Your task to perform on an android device: Open notification settings Image 0: 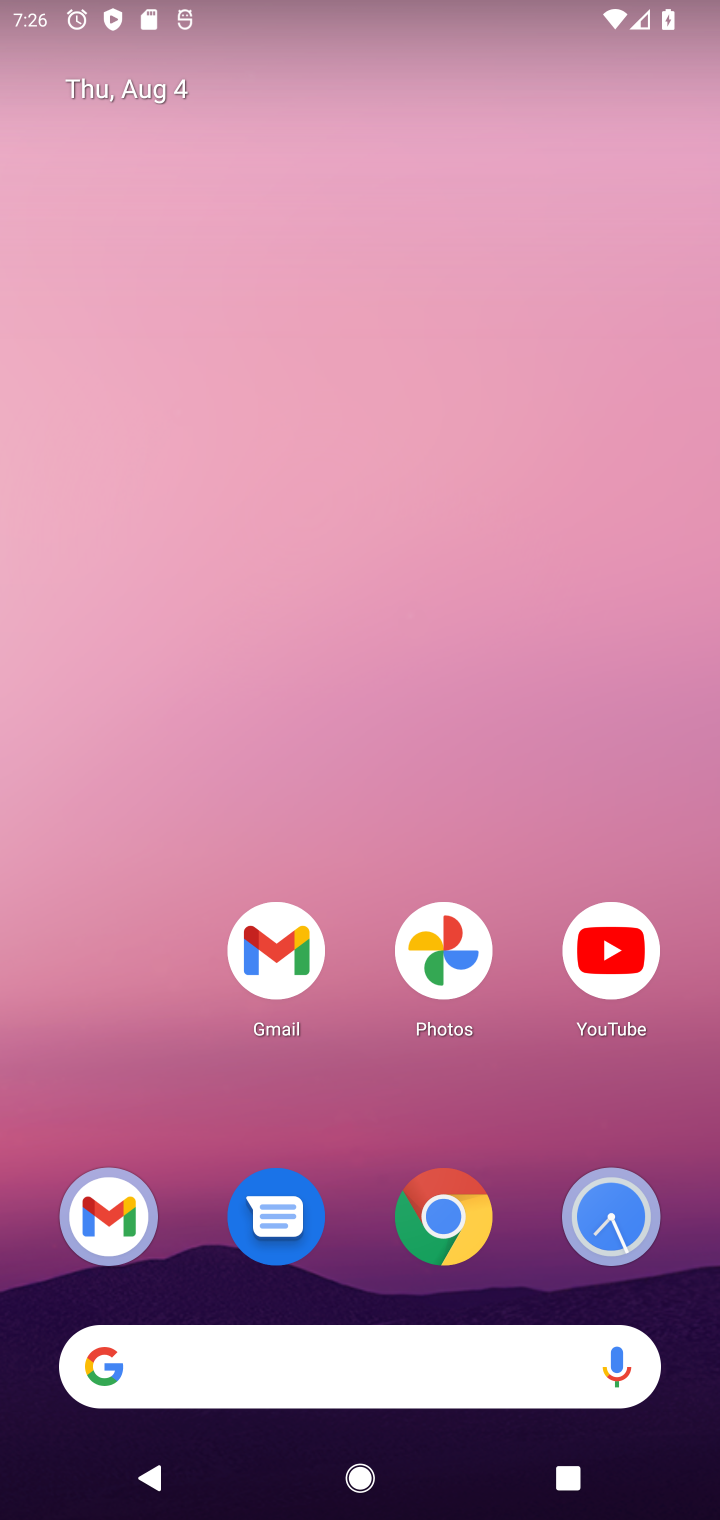
Step 0: drag from (510, 864) to (462, 8)
Your task to perform on an android device: Open notification settings Image 1: 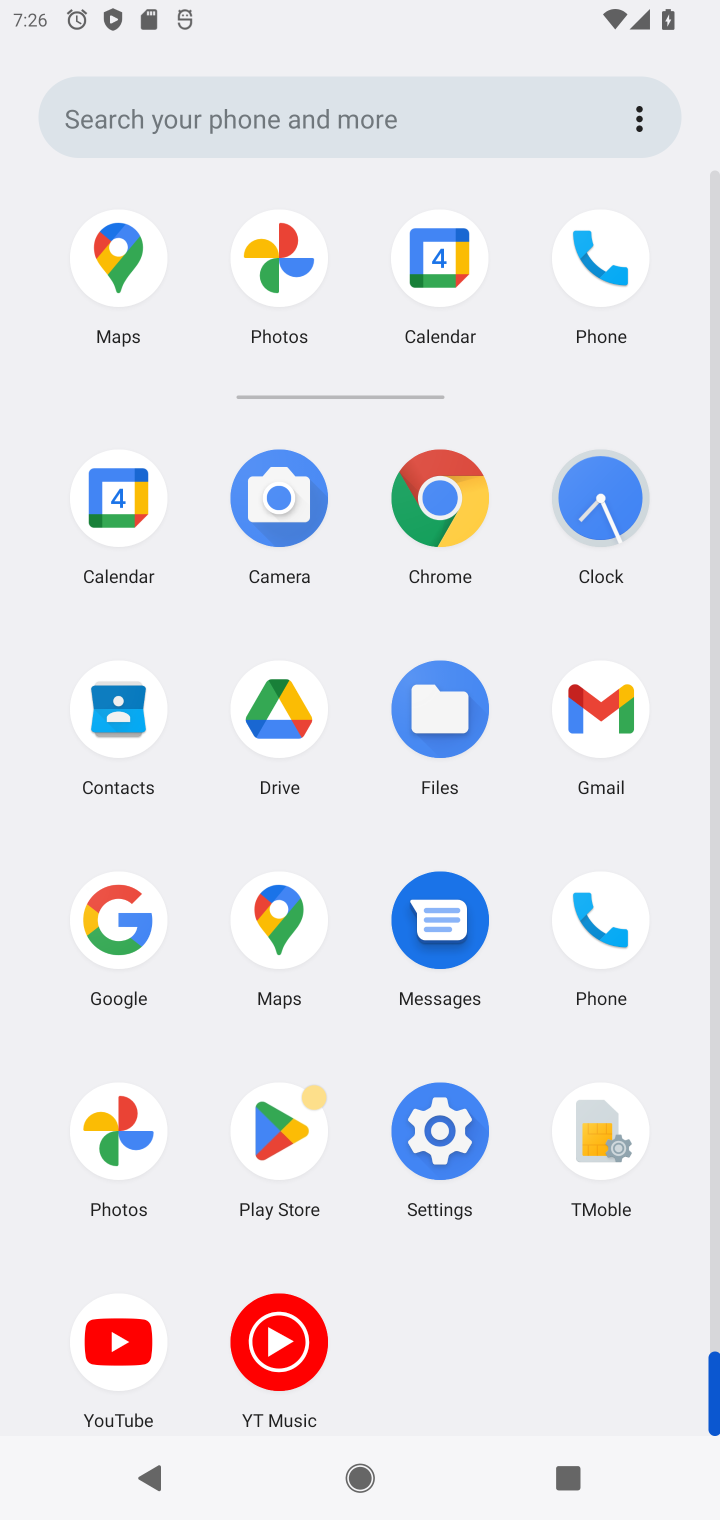
Step 1: click (446, 1161)
Your task to perform on an android device: Open notification settings Image 2: 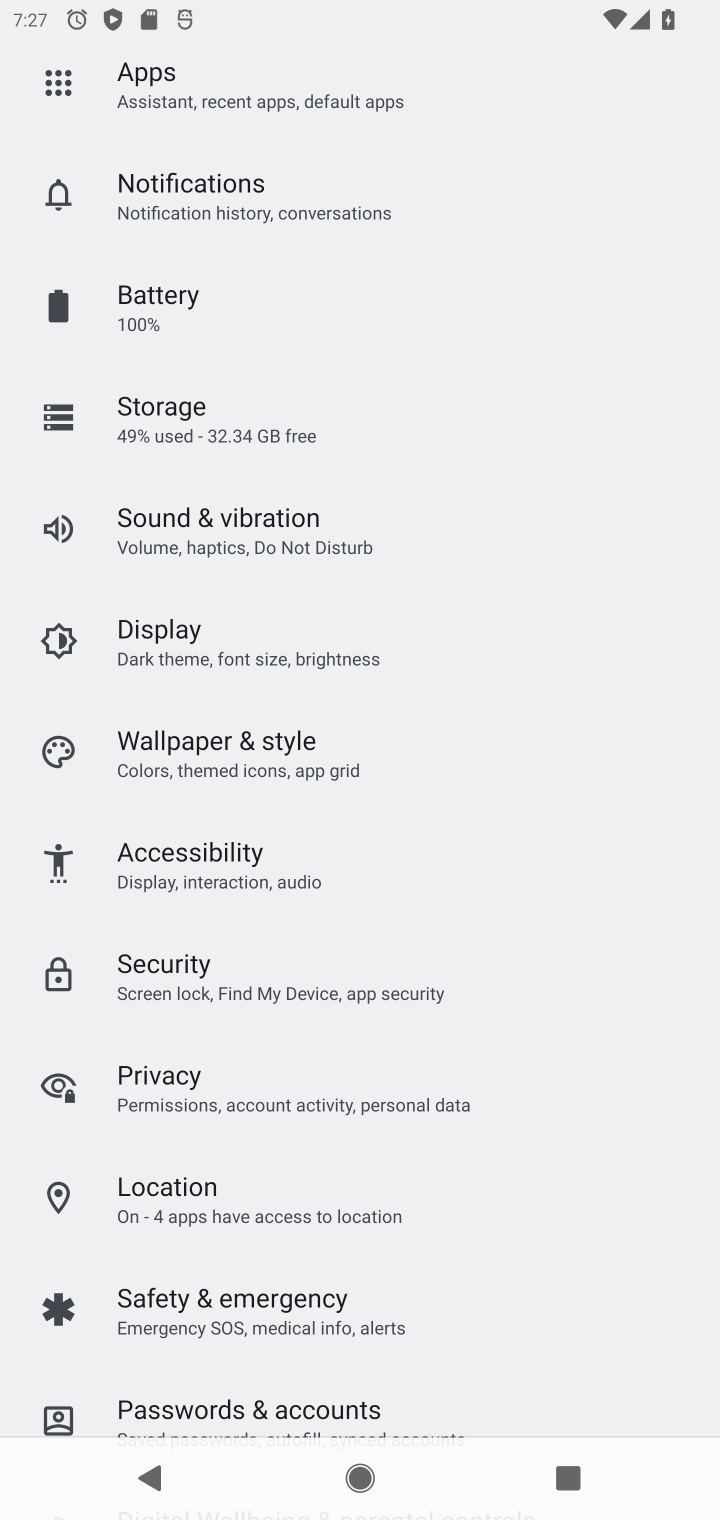
Step 2: drag from (297, 279) to (336, 628)
Your task to perform on an android device: Open notification settings Image 3: 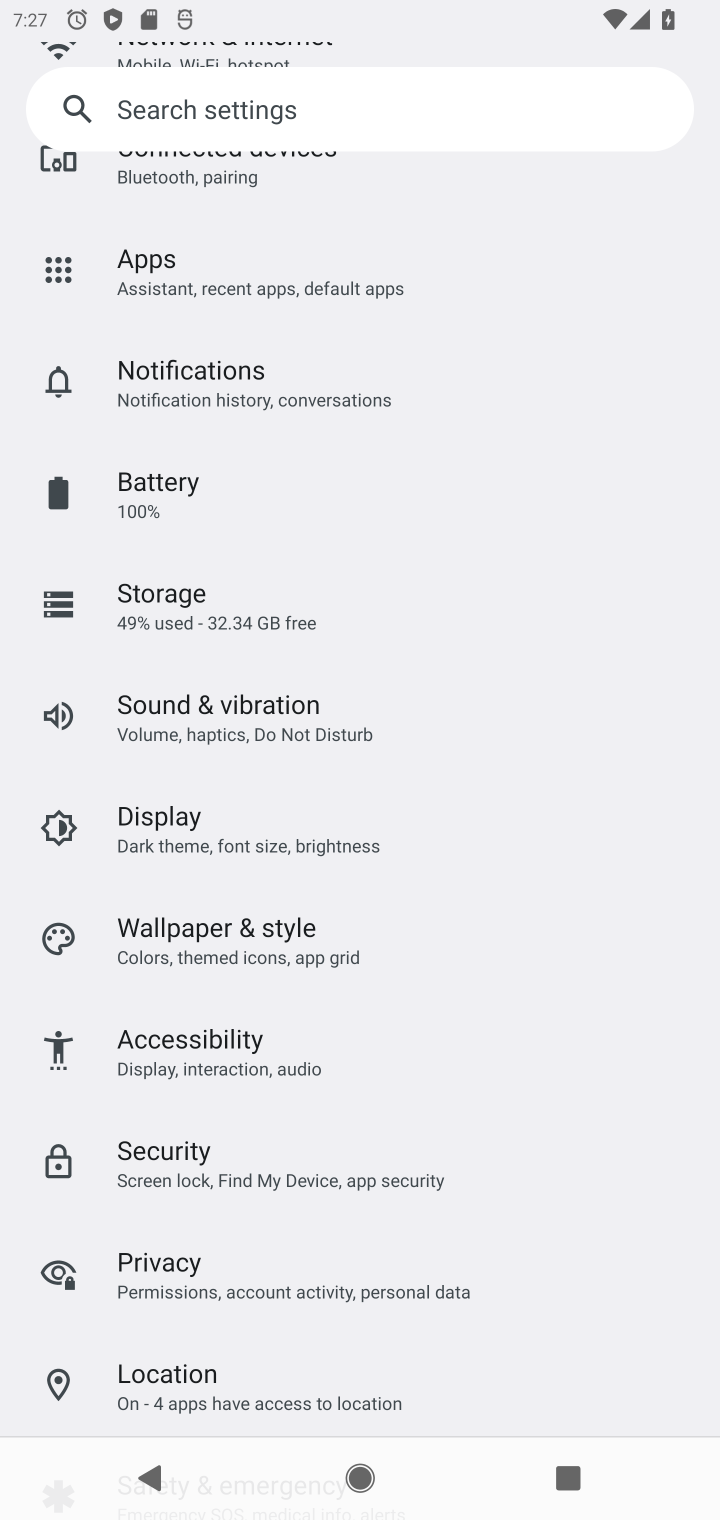
Step 3: click (219, 381)
Your task to perform on an android device: Open notification settings Image 4: 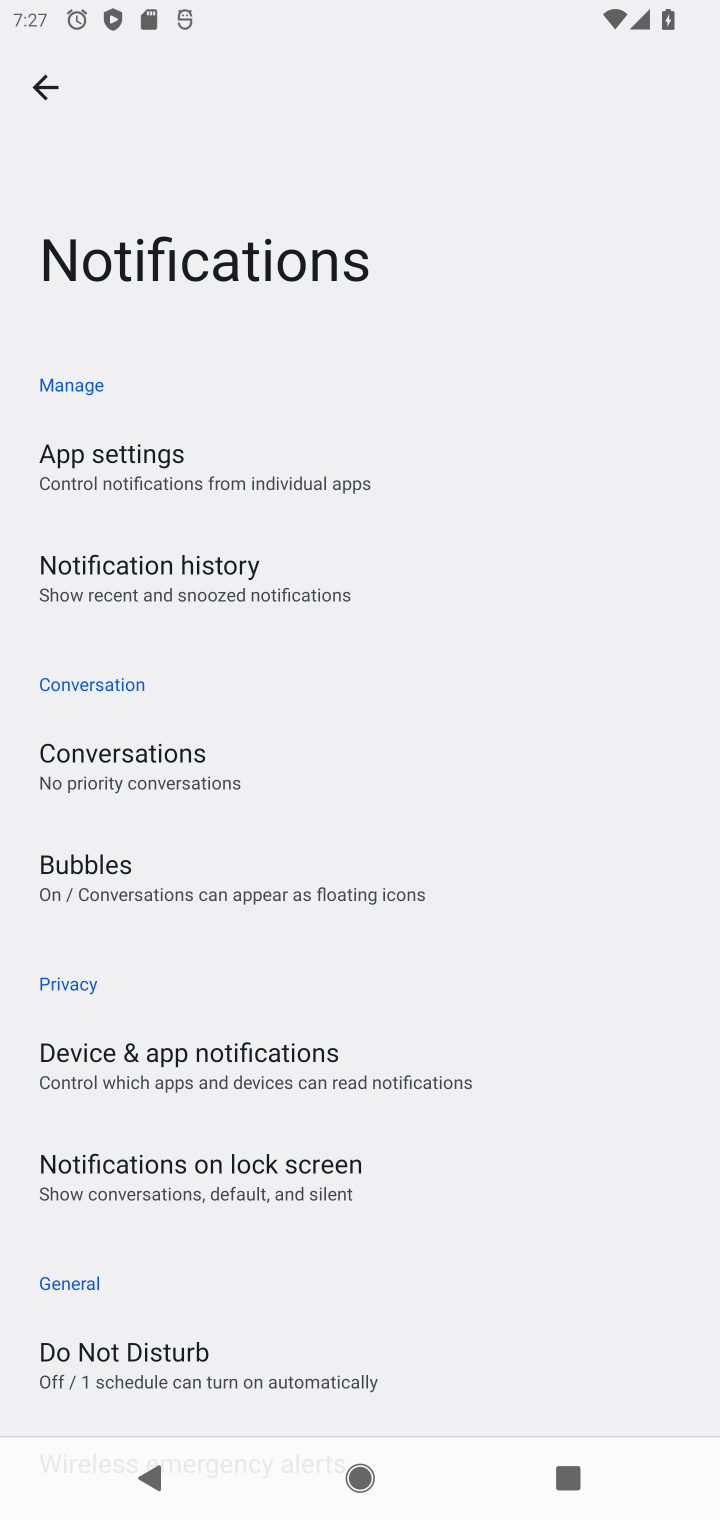
Step 4: task complete